Your task to perform on an android device: Go to notification settings Image 0: 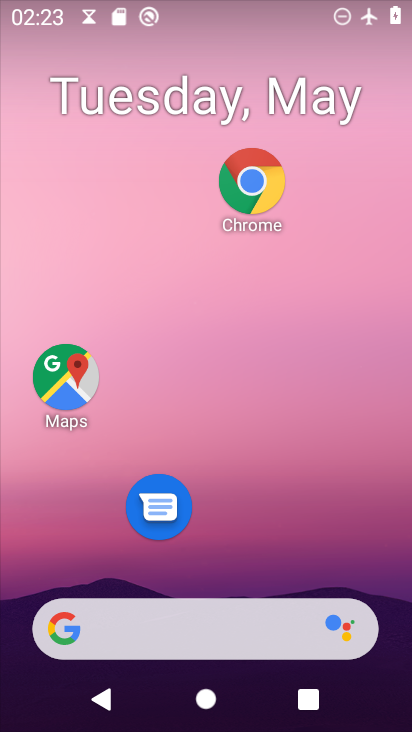
Step 0: drag from (317, 542) to (322, 231)
Your task to perform on an android device: Go to notification settings Image 1: 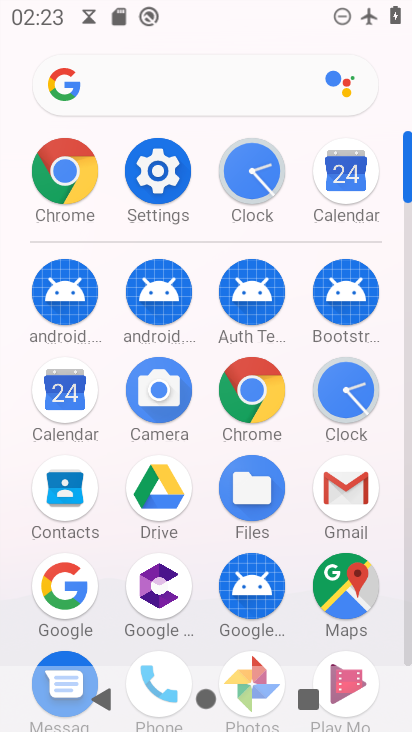
Step 1: click (159, 164)
Your task to perform on an android device: Go to notification settings Image 2: 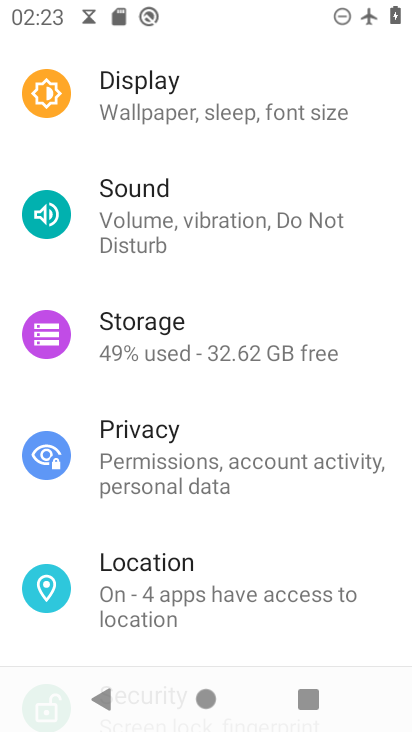
Step 2: drag from (212, 146) to (211, 216)
Your task to perform on an android device: Go to notification settings Image 3: 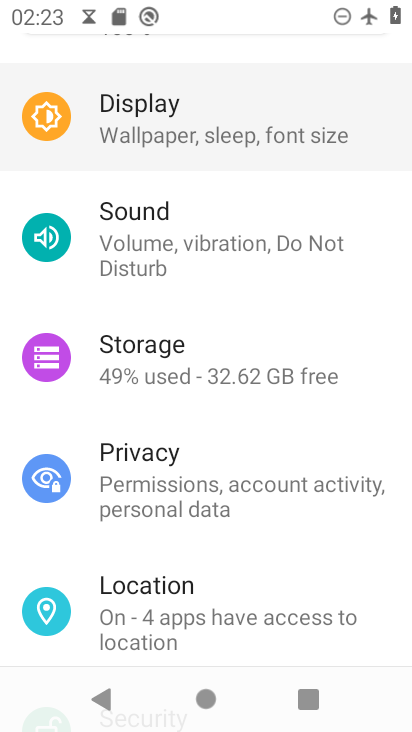
Step 3: drag from (214, 229) to (257, 428)
Your task to perform on an android device: Go to notification settings Image 4: 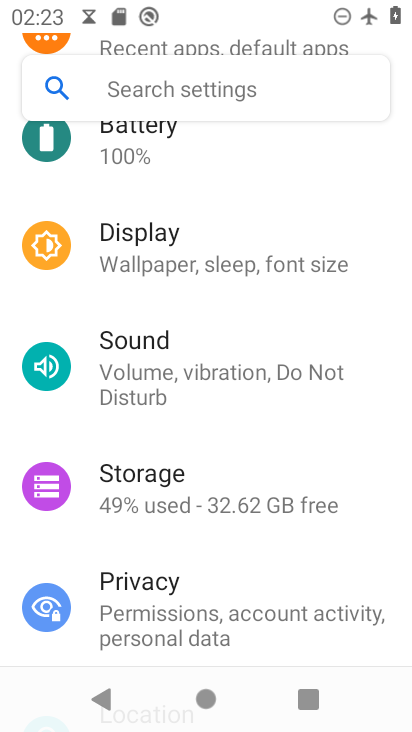
Step 4: drag from (179, 177) to (193, 532)
Your task to perform on an android device: Go to notification settings Image 5: 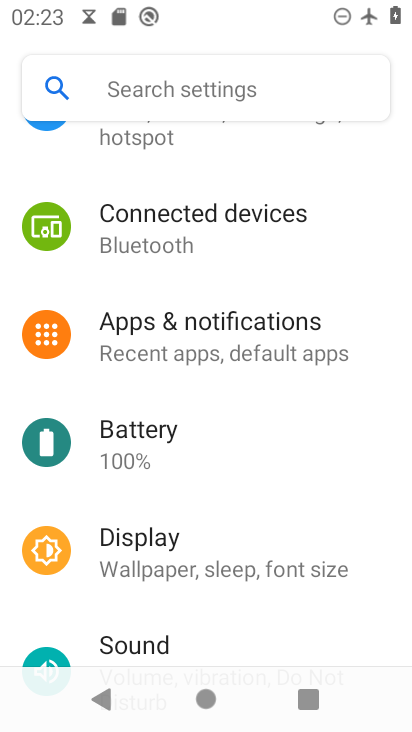
Step 5: drag from (228, 207) to (251, 603)
Your task to perform on an android device: Go to notification settings Image 6: 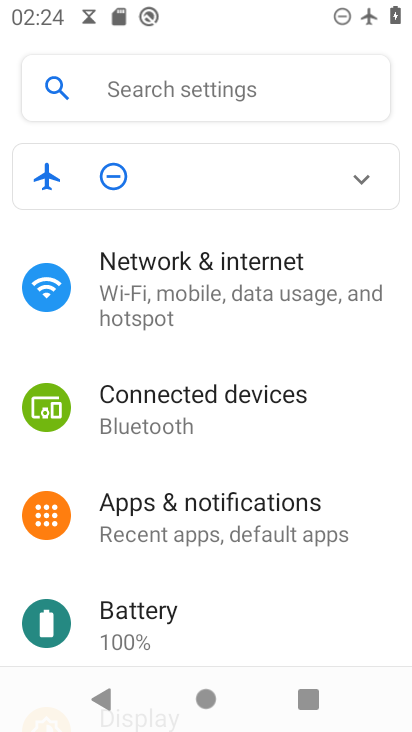
Step 6: click (218, 521)
Your task to perform on an android device: Go to notification settings Image 7: 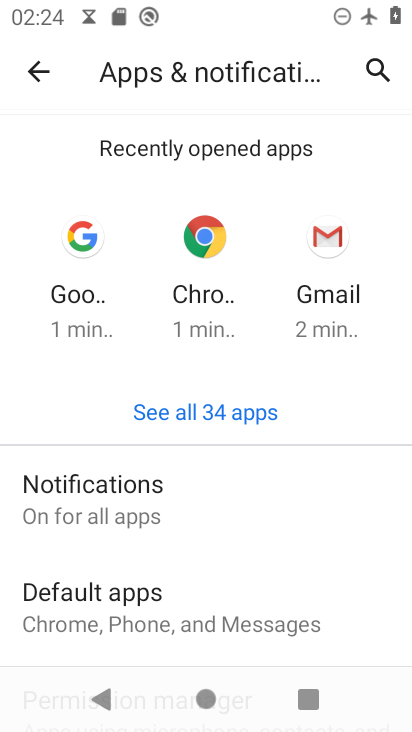
Step 7: click (145, 496)
Your task to perform on an android device: Go to notification settings Image 8: 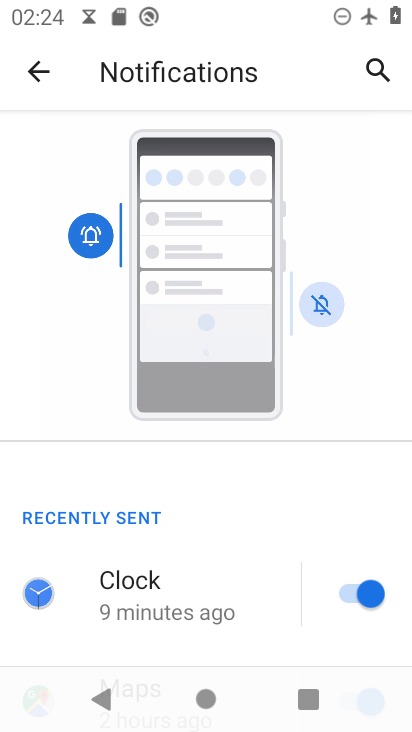
Step 8: task complete